Your task to perform on an android device: Go to Android settings Image 0: 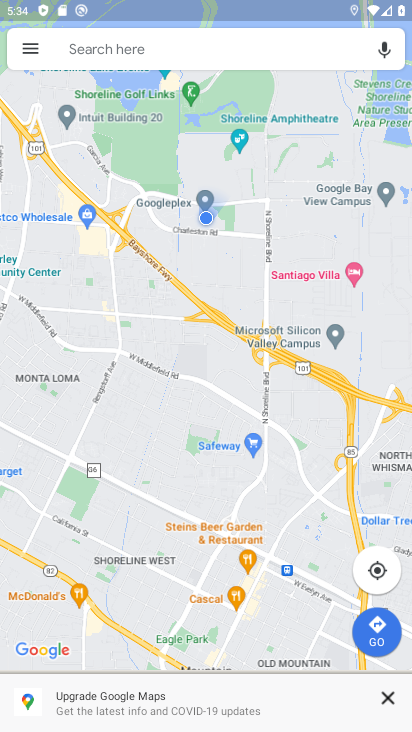
Step 0: press home button
Your task to perform on an android device: Go to Android settings Image 1: 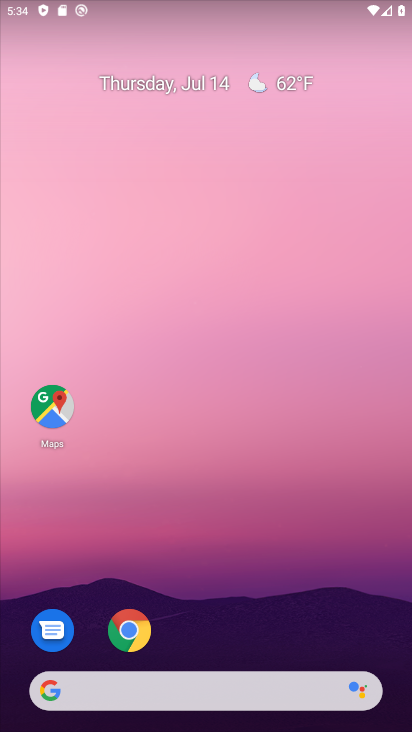
Step 1: drag from (228, 486) to (232, 255)
Your task to perform on an android device: Go to Android settings Image 2: 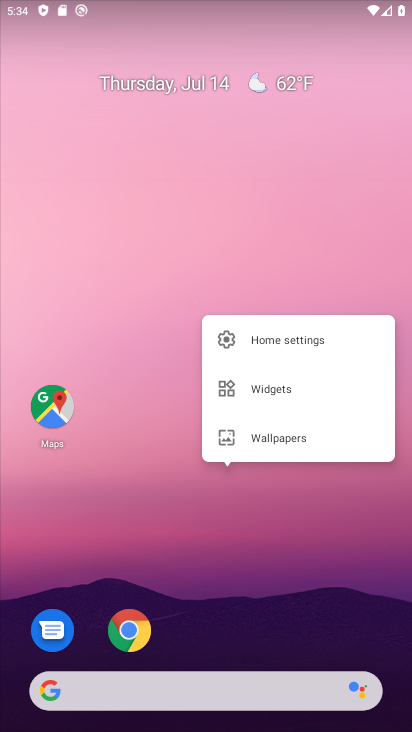
Step 2: drag from (234, 405) to (201, 75)
Your task to perform on an android device: Go to Android settings Image 3: 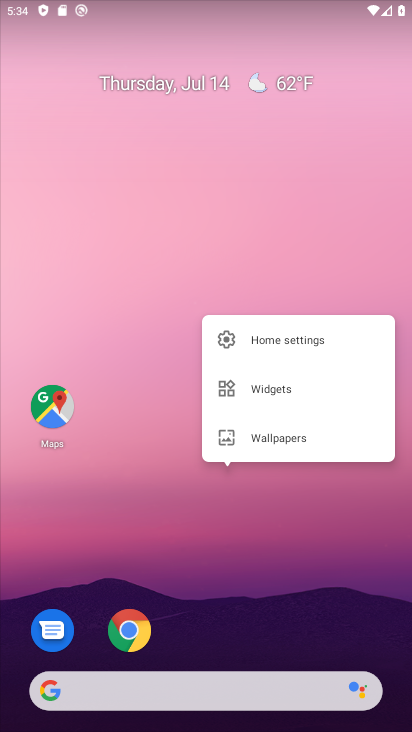
Step 3: drag from (210, 646) to (351, 15)
Your task to perform on an android device: Go to Android settings Image 4: 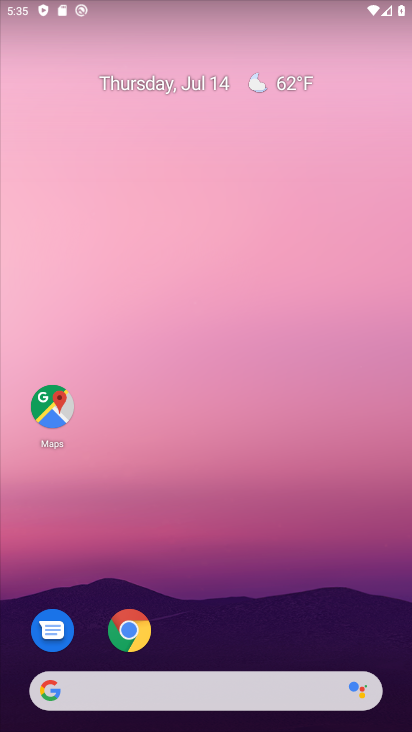
Step 4: drag from (224, 627) to (217, 126)
Your task to perform on an android device: Go to Android settings Image 5: 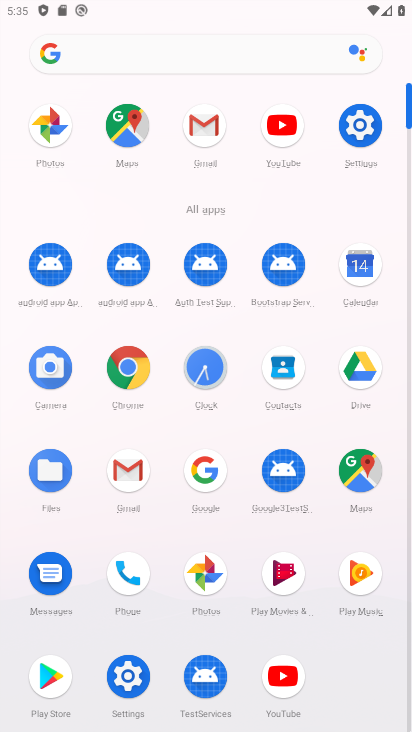
Step 5: click (362, 135)
Your task to perform on an android device: Go to Android settings Image 6: 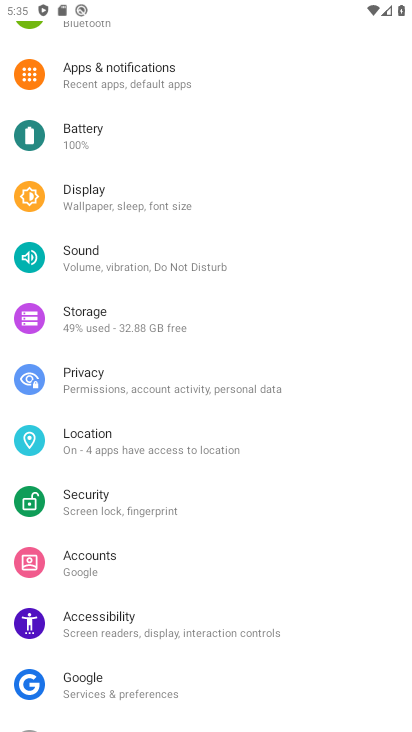
Step 6: task complete